Your task to perform on an android device: find which apps use the phone's location Image 0: 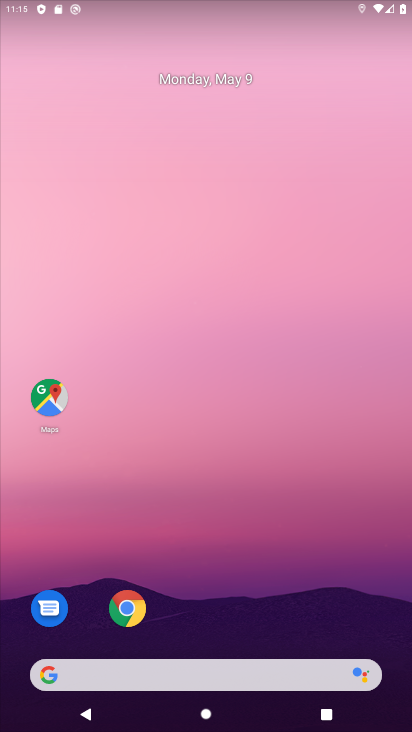
Step 0: drag from (71, 610) to (271, 125)
Your task to perform on an android device: find which apps use the phone's location Image 1: 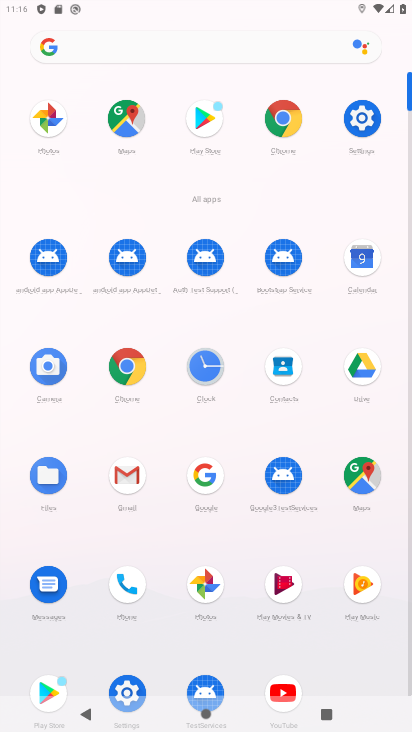
Step 1: click (343, 143)
Your task to perform on an android device: find which apps use the phone's location Image 2: 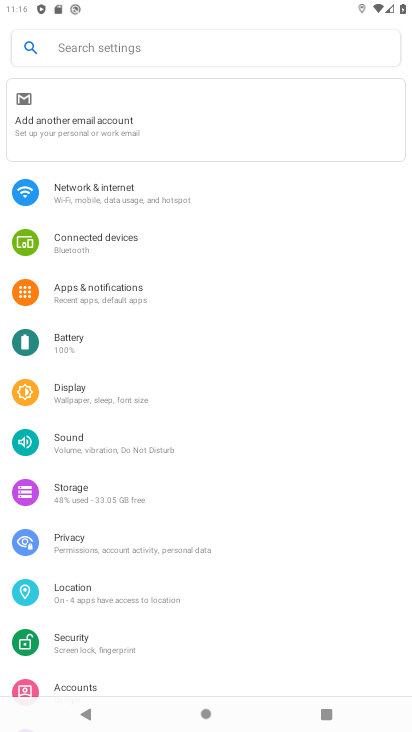
Step 2: click (57, 591)
Your task to perform on an android device: find which apps use the phone's location Image 3: 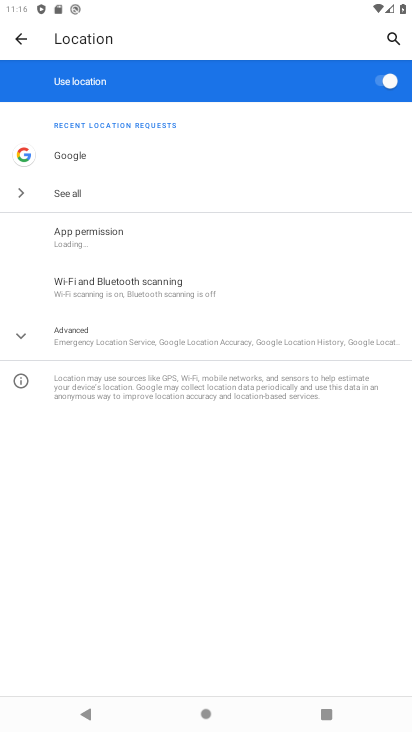
Step 3: click (122, 235)
Your task to perform on an android device: find which apps use the phone's location Image 4: 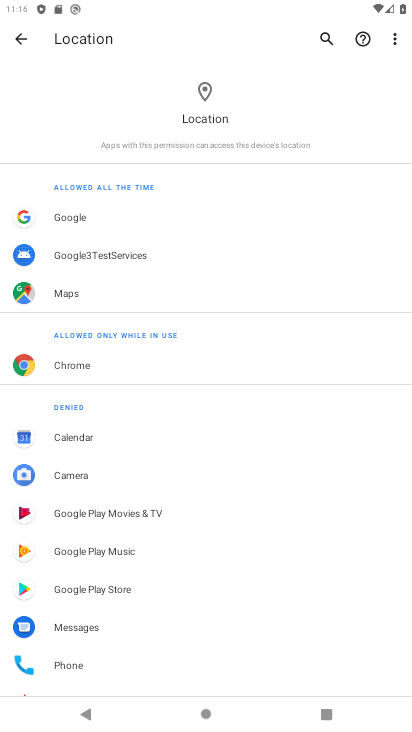
Step 4: task complete